Your task to perform on an android device: Search for Italian restaurants on Maps Image 0: 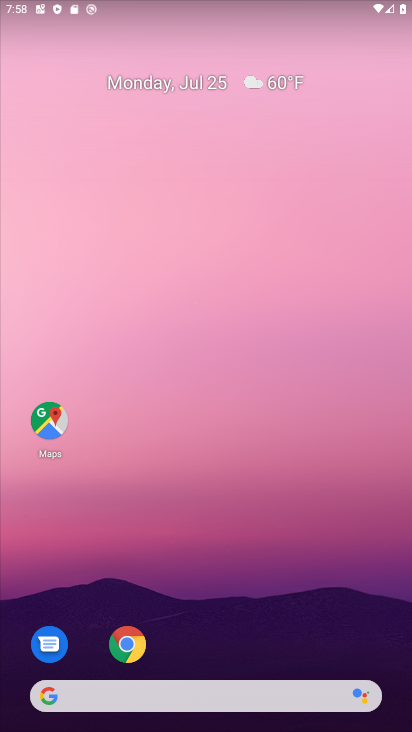
Step 0: click (62, 421)
Your task to perform on an android device: Search for Italian restaurants on Maps Image 1: 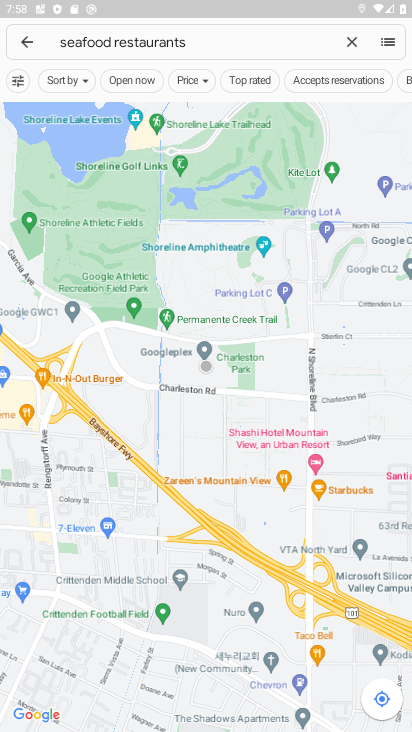
Step 1: click (243, 36)
Your task to perform on an android device: Search for Italian restaurants on Maps Image 2: 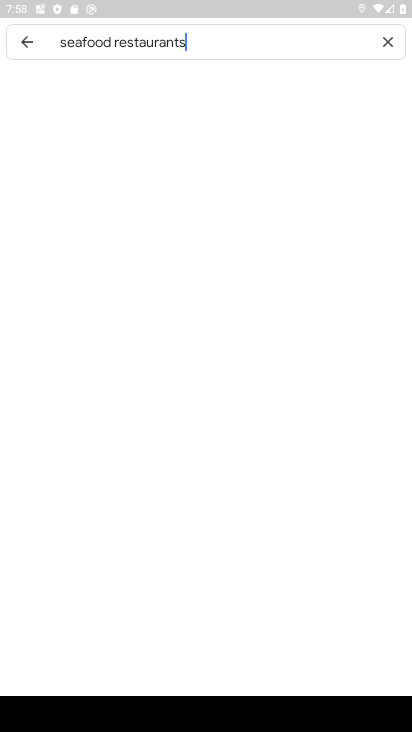
Step 2: click (347, 40)
Your task to perform on an android device: Search for Italian restaurants on Maps Image 3: 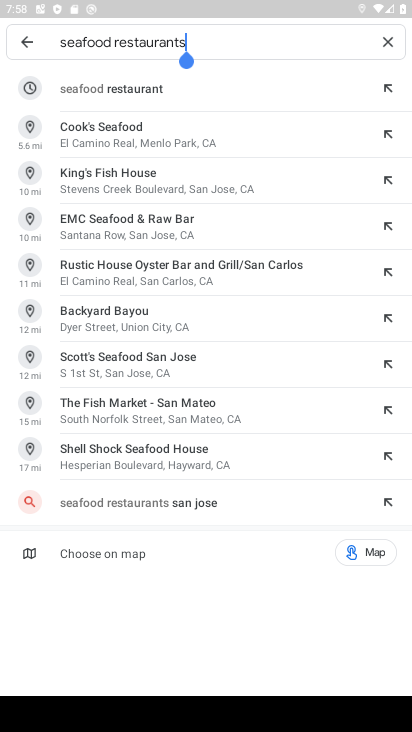
Step 3: click (388, 43)
Your task to perform on an android device: Search for Italian restaurants on Maps Image 4: 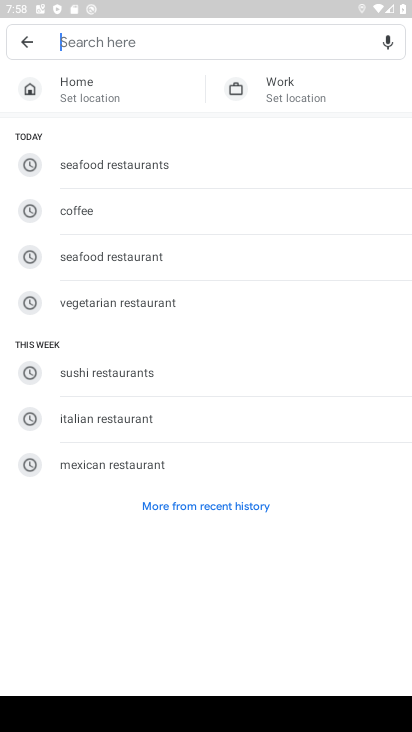
Step 4: type "Italian restaurants "
Your task to perform on an android device: Search for Italian restaurants on Maps Image 5: 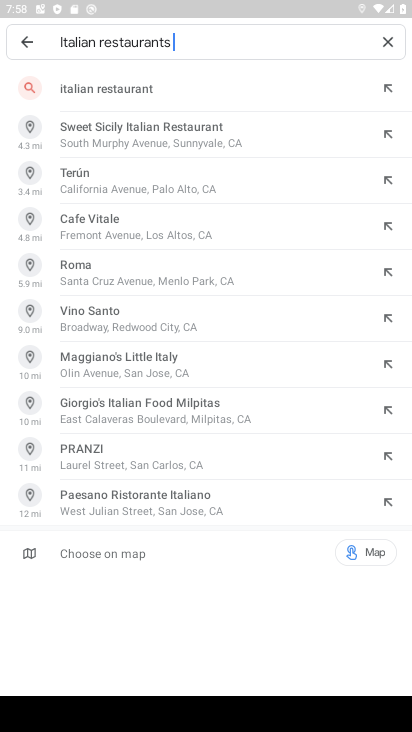
Step 5: press enter
Your task to perform on an android device: Search for Italian restaurants on Maps Image 6: 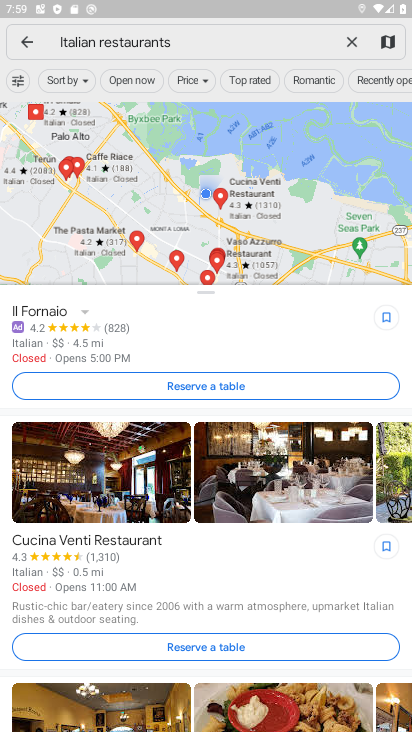
Step 6: task complete